Your task to perform on an android device: refresh tabs in the chrome app Image 0: 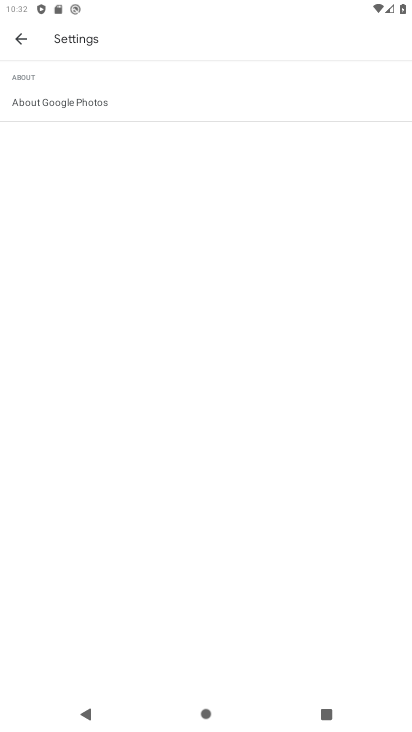
Step 0: press back button
Your task to perform on an android device: refresh tabs in the chrome app Image 1: 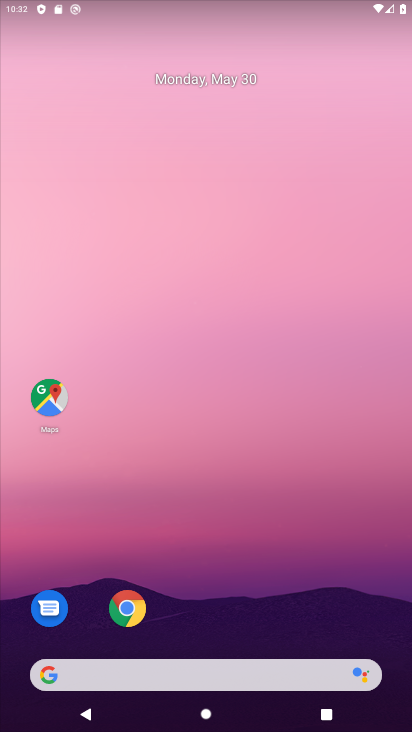
Step 1: drag from (294, 582) to (245, 1)
Your task to perform on an android device: refresh tabs in the chrome app Image 2: 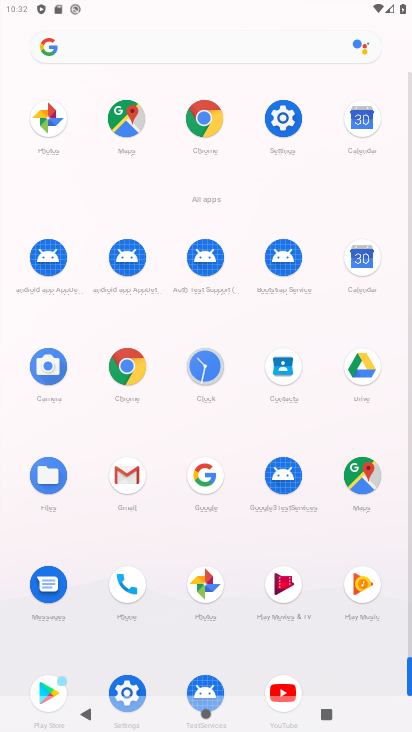
Step 2: drag from (7, 547) to (6, 222)
Your task to perform on an android device: refresh tabs in the chrome app Image 3: 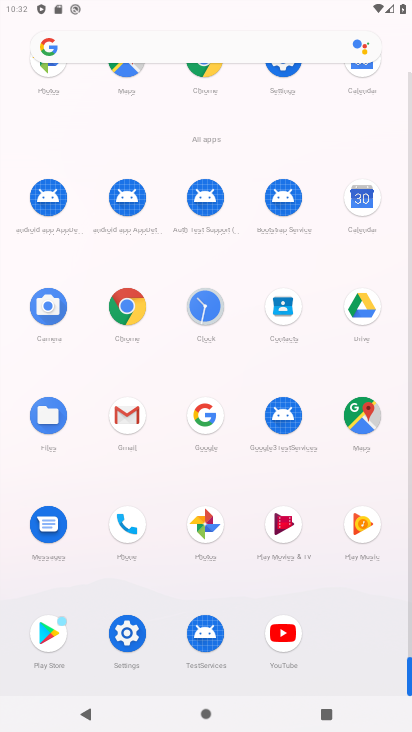
Step 3: click (126, 303)
Your task to perform on an android device: refresh tabs in the chrome app Image 4: 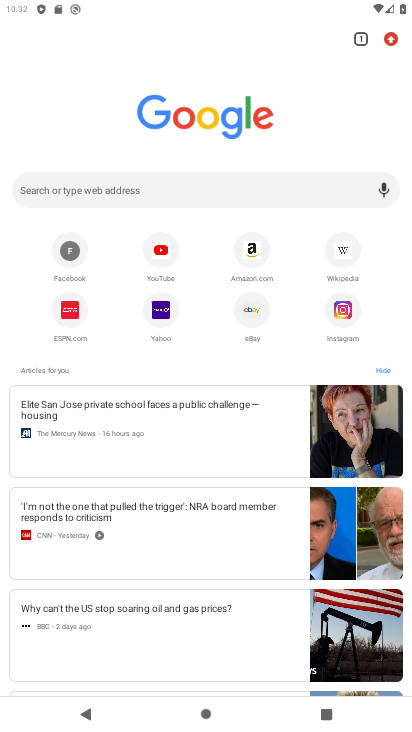
Step 4: click (385, 34)
Your task to perform on an android device: refresh tabs in the chrome app Image 5: 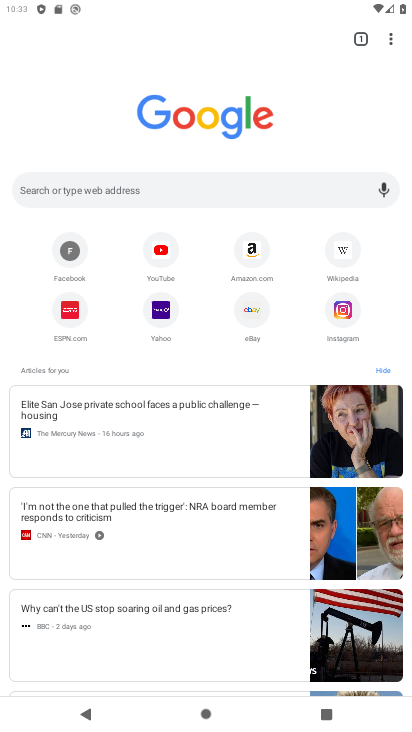
Step 5: task complete